Your task to perform on an android device: turn off data saver in the chrome app Image 0: 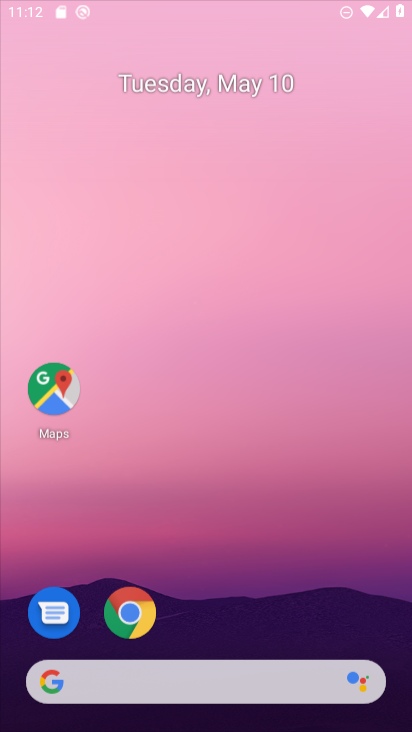
Step 0: drag from (261, 580) to (290, 185)
Your task to perform on an android device: turn off data saver in the chrome app Image 1: 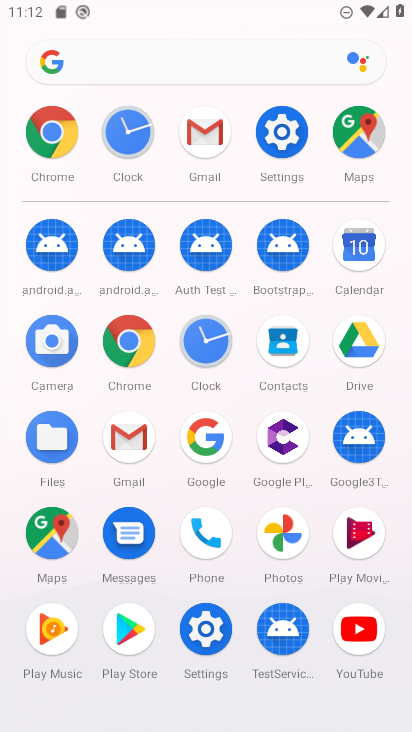
Step 1: click (54, 122)
Your task to perform on an android device: turn off data saver in the chrome app Image 2: 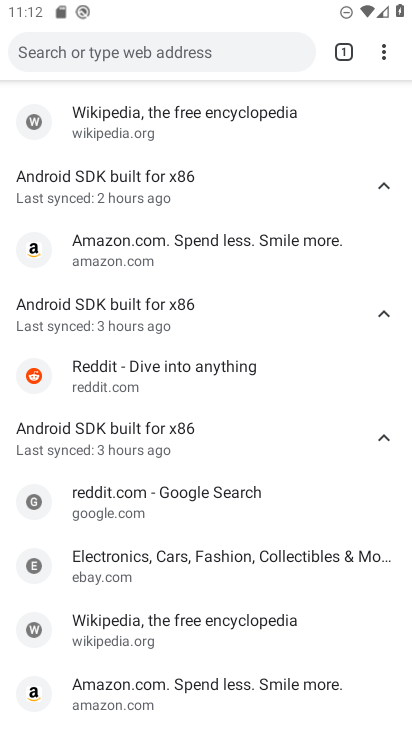
Step 2: drag from (376, 61) to (229, 439)
Your task to perform on an android device: turn off data saver in the chrome app Image 3: 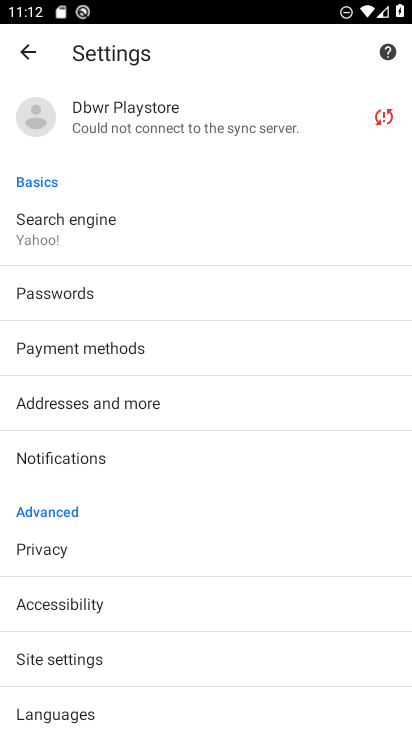
Step 3: drag from (201, 522) to (304, 26)
Your task to perform on an android device: turn off data saver in the chrome app Image 4: 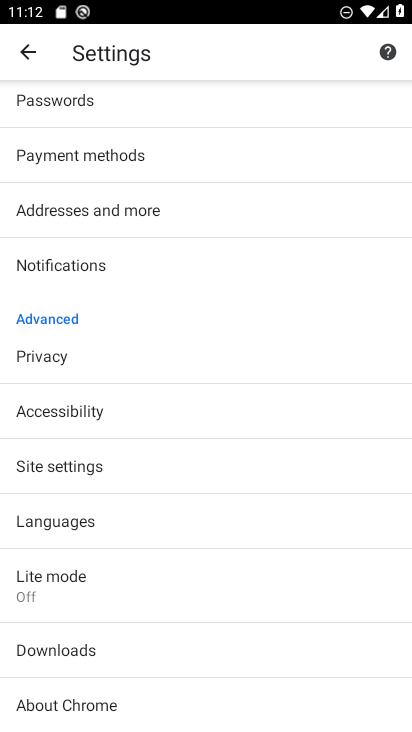
Step 4: drag from (140, 681) to (309, 102)
Your task to perform on an android device: turn off data saver in the chrome app Image 5: 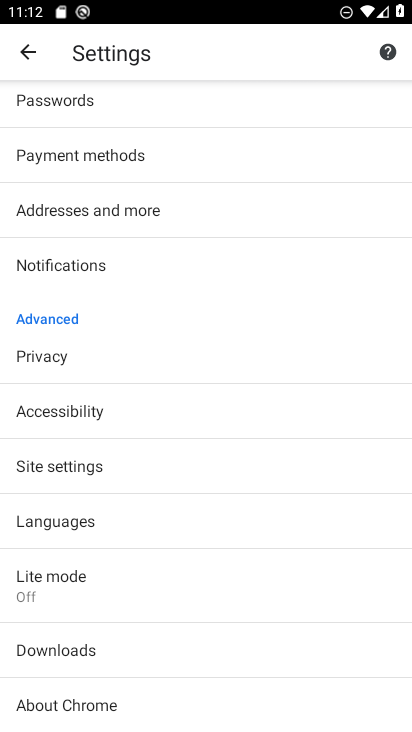
Step 5: click (68, 588)
Your task to perform on an android device: turn off data saver in the chrome app Image 6: 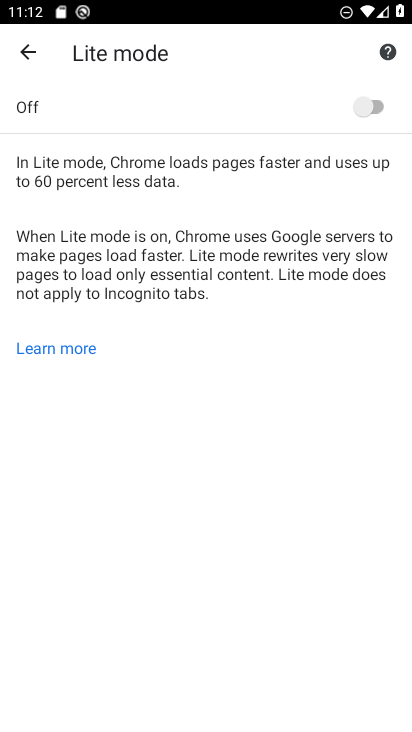
Step 6: task complete